Your task to perform on an android device: Do I have any events tomorrow? Image 0: 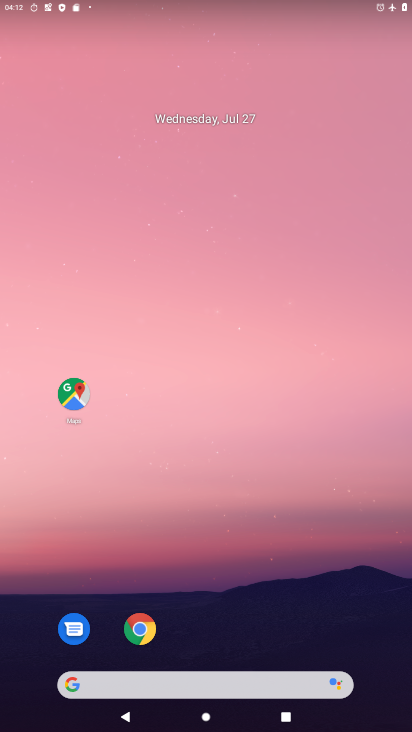
Step 0: drag from (305, 602) to (222, 62)
Your task to perform on an android device: Do I have any events tomorrow? Image 1: 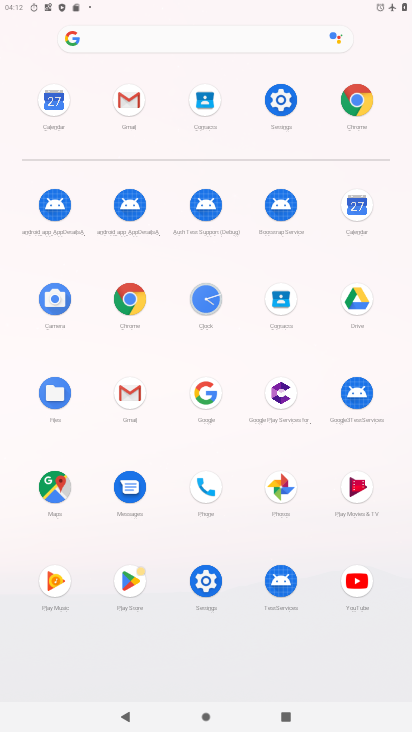
Step 1: click (360, 216)
Your task to perform on an android device: Do I have any events tomorrow? Image 2: 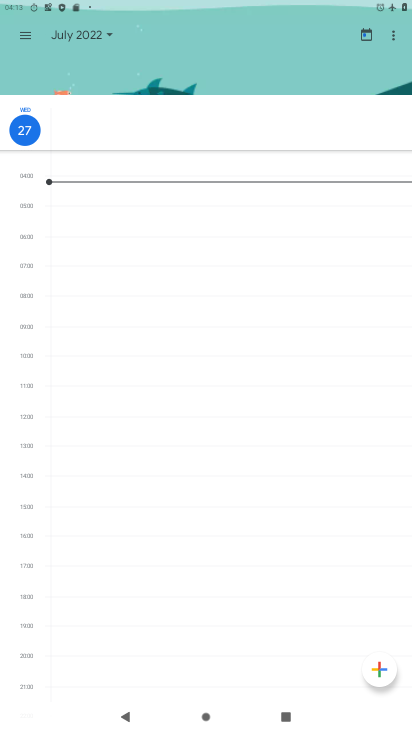
Step 2: click (75, 40)
Your task to perform on an android device: Do I have any events tomorrow? Image 3: 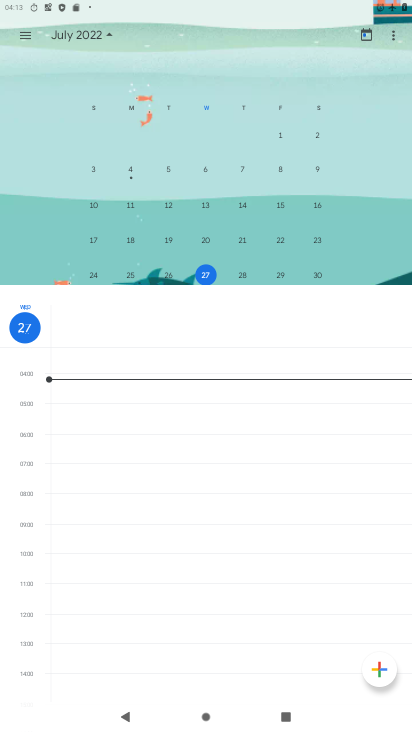
Step 3: click (232, 266)
Your task to perform on an android device: Do I have any events tomorrow? Image 4: 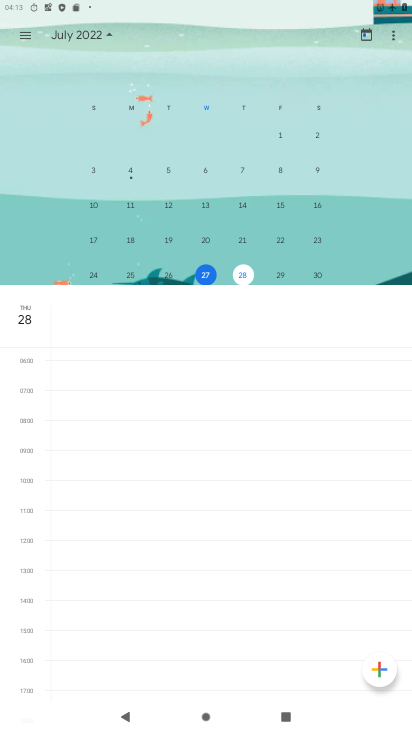
Step 4: task complete